Your task to perform on an android device: Open ESPN.com Image 0: 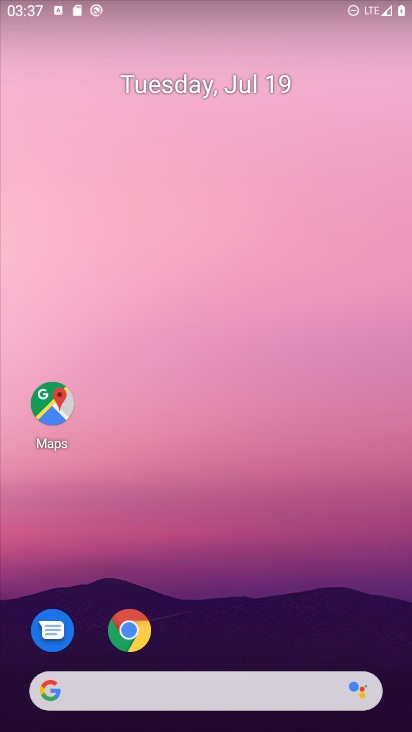
Step 0: click (127, 633)
Your task to perform on an android device: Open ESPN.com Image 1: 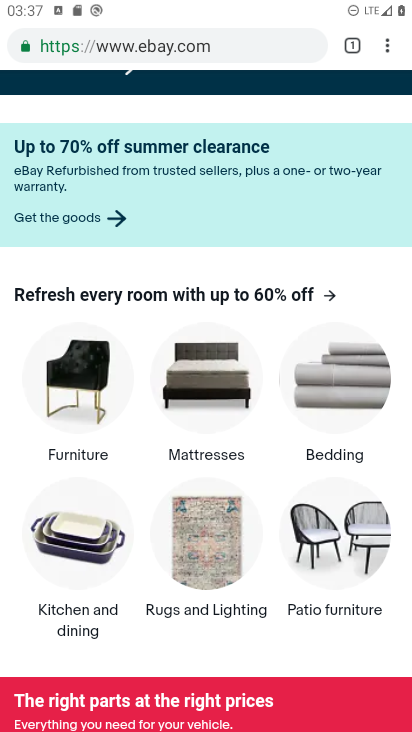
Step 1: click (245, 44)
Your task to perform on an android device: Open ESPN.com Image 2: 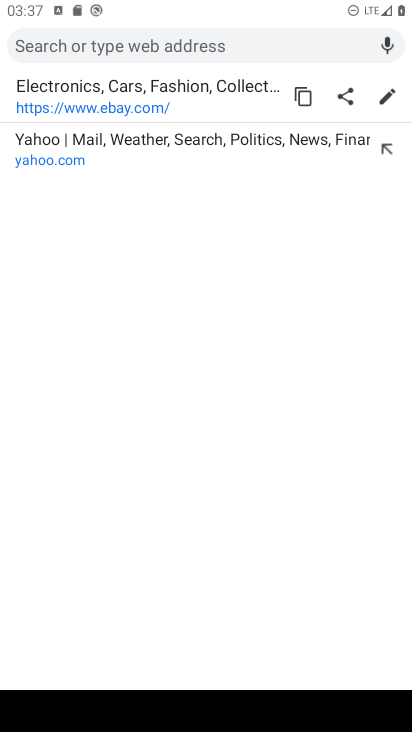
Step 2: type "ESPN.com"
Your task to perform on an android device: Open ESPN.com Image 3: 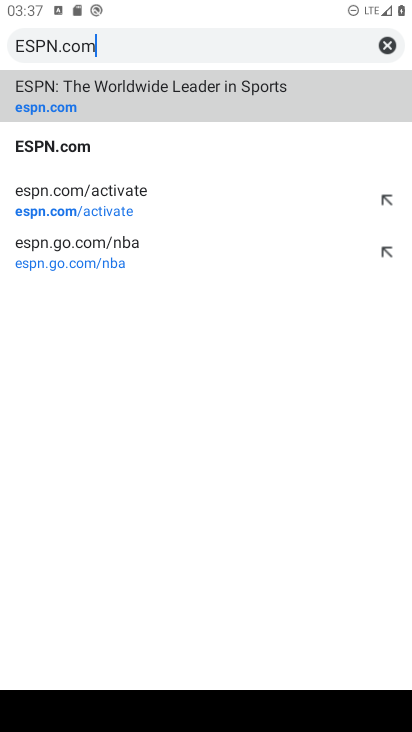
Step 3: click (95, 90)
Your task to perform on an android device: Open ESPN.com Image 4: 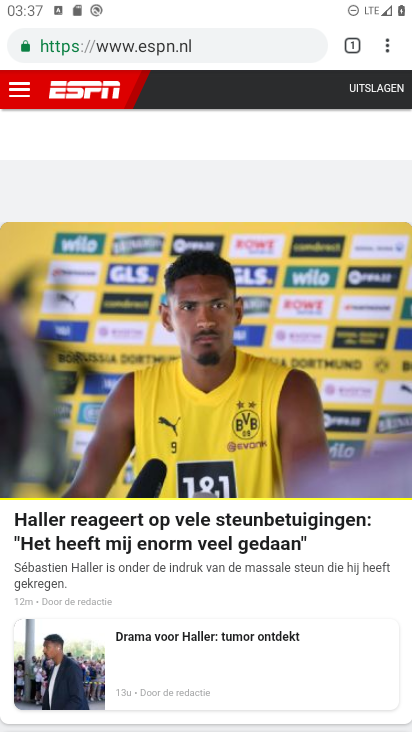
Step 4: drag from (212, 213) to (224, 67)
Your task to perform on an android device: Open ESPN.com Image 5: 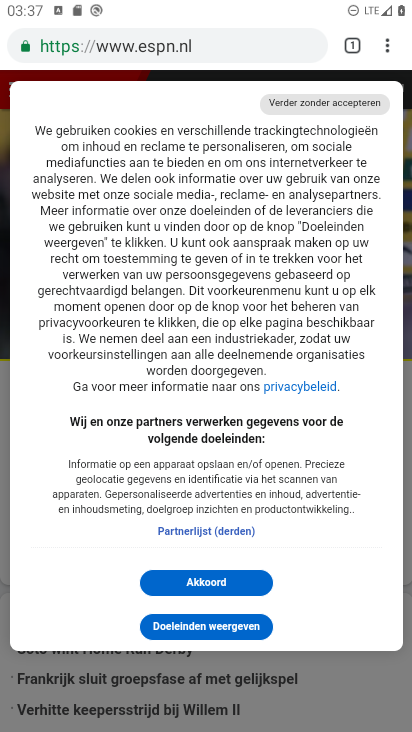
Step 5: click (201, 580)
Your task to perform on an android device: Open ESPN.com Image 6: 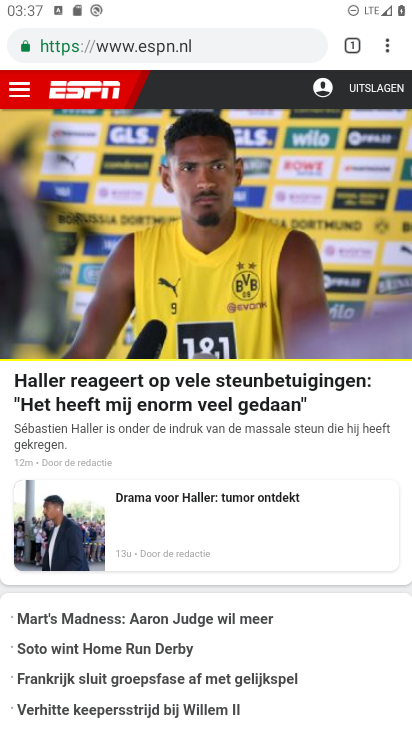
Step 6: task complete